Your task to perform on an android device: delete location history Image 0: 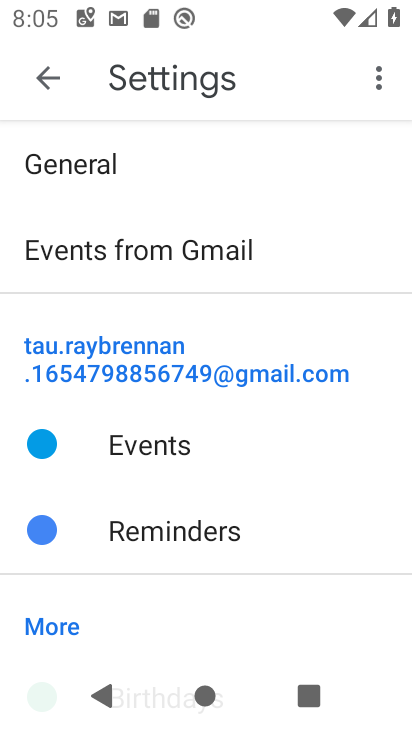
Step 0: press home button
Your task to perform on an android device: delete location history Image 1: 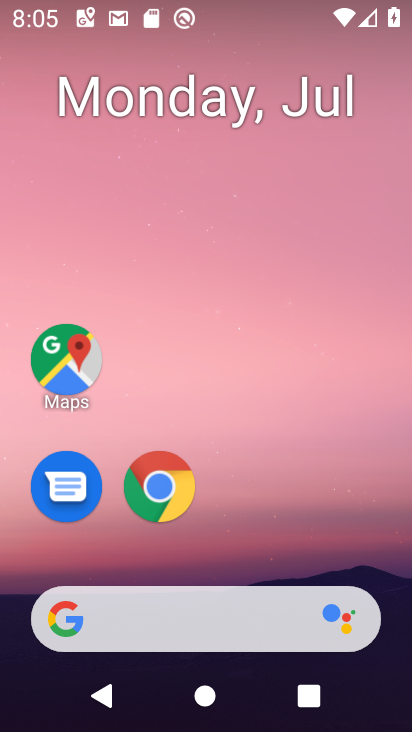
Step 1: drag from (369, 534) to (370, 127)
Your task to perform on an android device: delete location history Image 2: 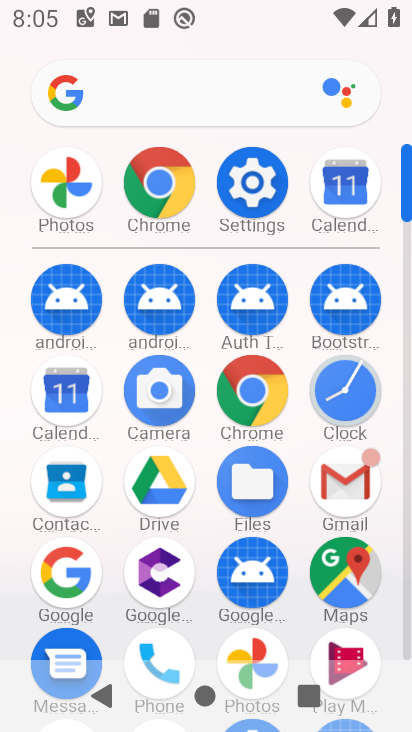
Step 2: click (341, 567)
Your task to perform on an android device: delete location history Image 3: 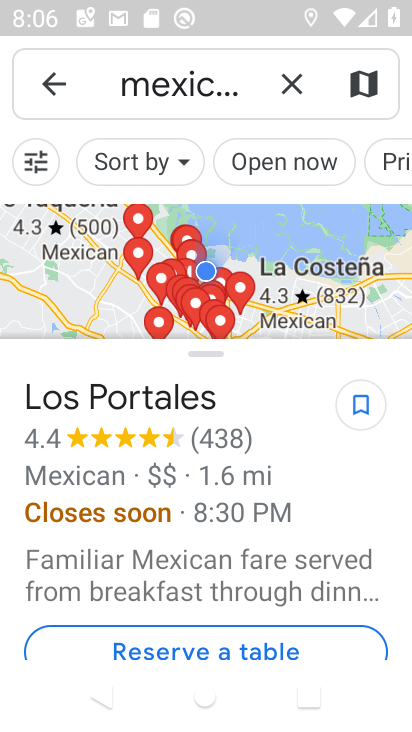
Step 3: press back button
Your task to perform on an android device: delete location history Image 4: 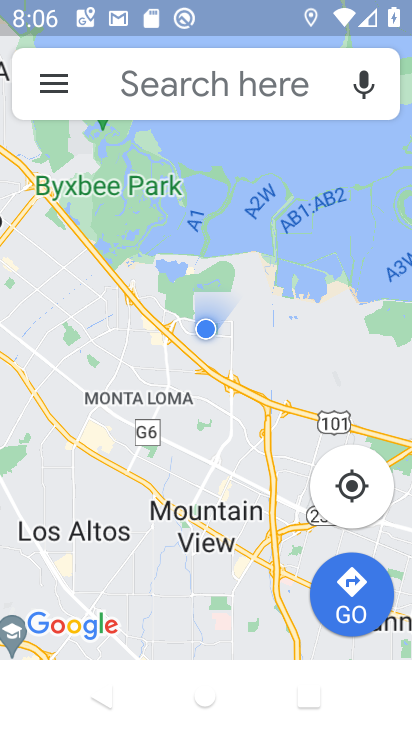
Step 4: click (57, 90)
Your task to perform on an android device: delete location history Image 5: 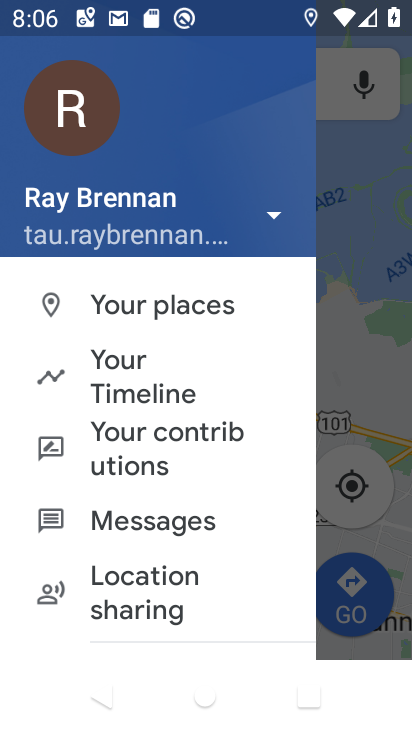
Step 5: click (209, 384)
Your task to perform on an android device: delete location history Image 6: 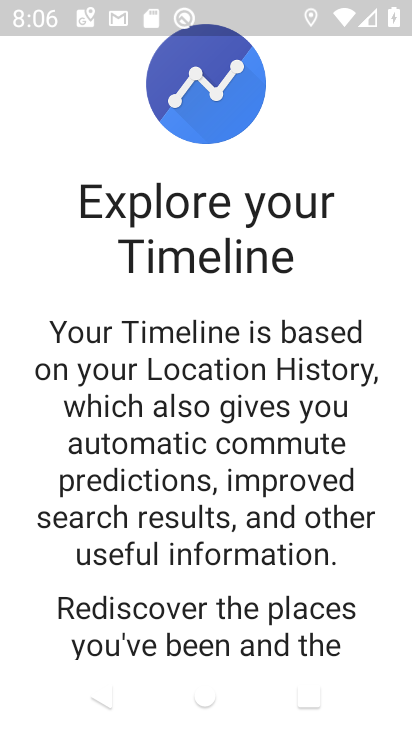
Step 6: drag from (251, 453) to (275, 100)
Your task to perform on an android device: delete location history Image 7: 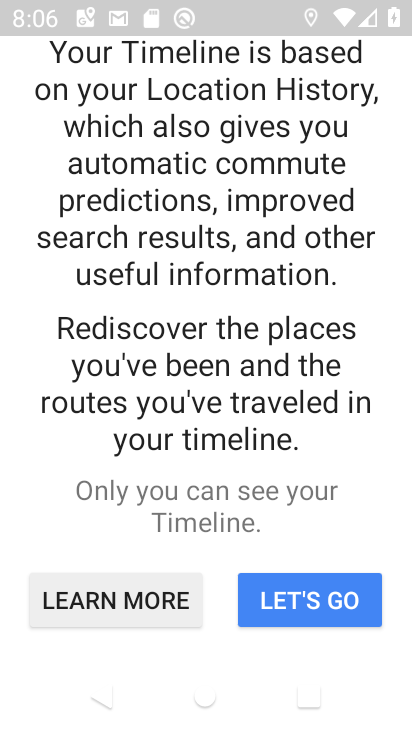
Step 7: click (332, 606)
Your task to perform on an android device: delete location history Image 8: 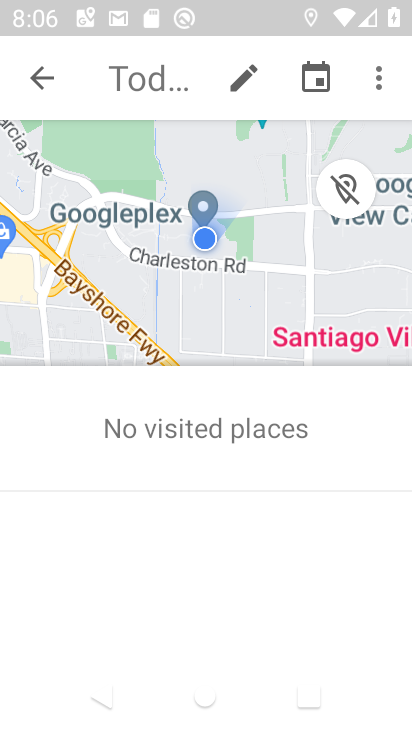
Step 8: click (376, 83)
Your task to perform on an android device: delete location history Image 9: 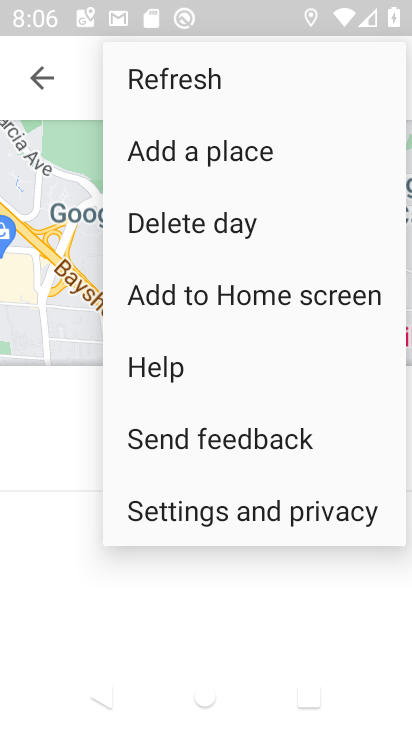
Step 9: click (287, 518)
Your task to perform on an android device: delete location history Image 10: 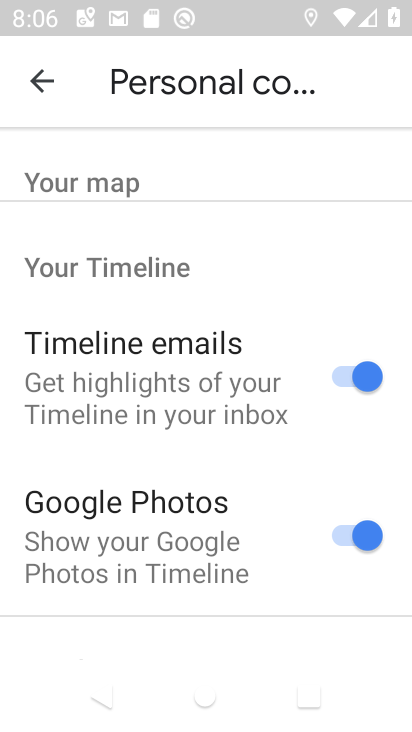
Step 10: drag from (294, 541) to (304, 328)
Your task to perform on an android device: delete location history Image 11: 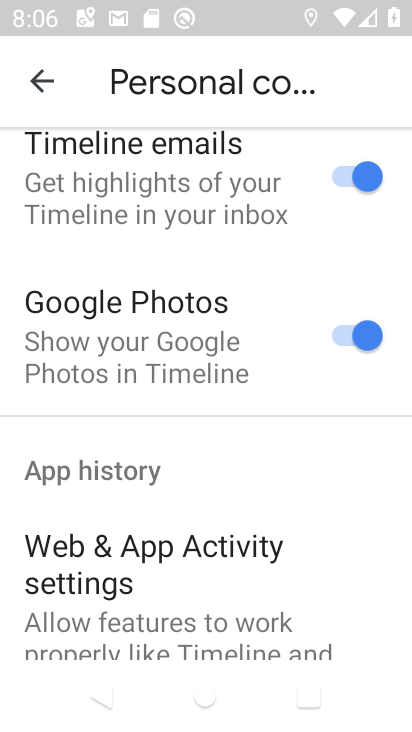
Step 11: drag from (308, 557) to (291, 371)
Your task to perform on an android device: delete location history Image 12: 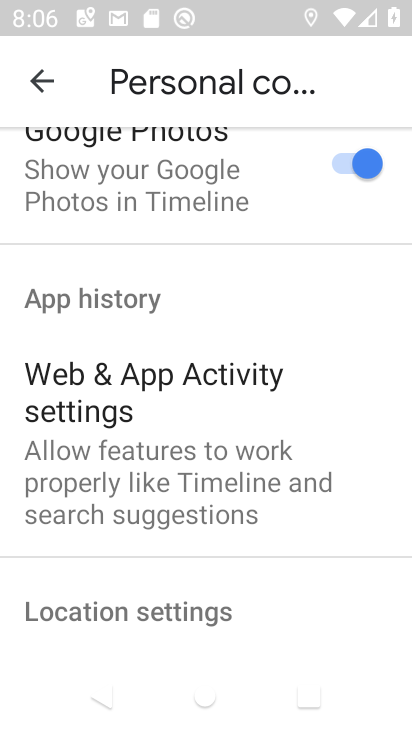
Step 12: drag from (320, 577) to (319, 368)
Your task to perform on an android device: delete location history Image 13: 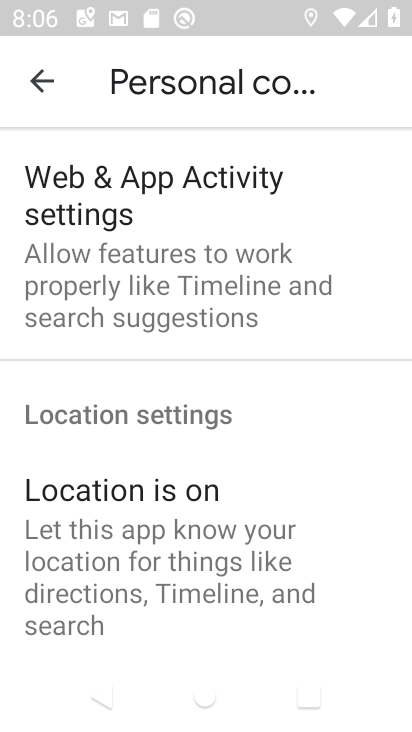
Step 13: drag from (327, 443) to (329, 300)
Your task to perform on an android device: delete location history Image 14: 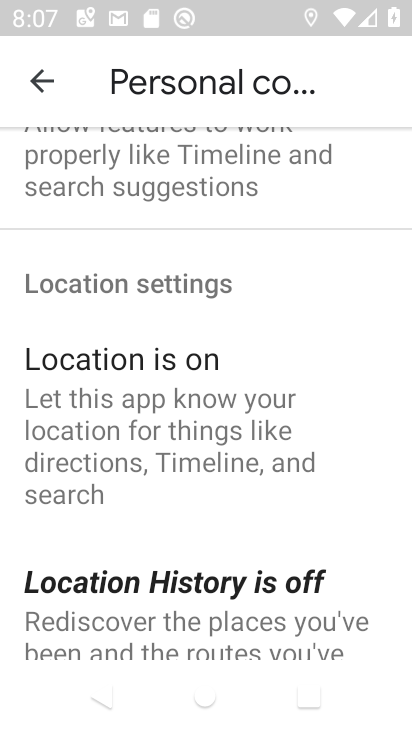
Step 14: drag from (350, 470) to (351, 292)
Your task to perform on an android device: delete location history Image 15: 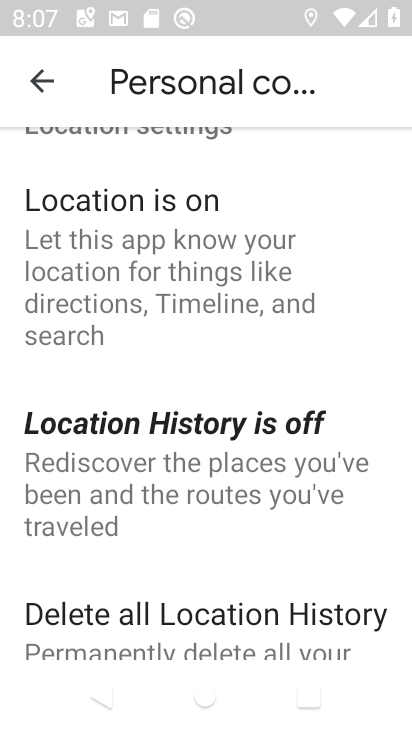
Step 15: drag from (353, 502) to (358, 154)
Your task to perform on an android device: delete location history Image 16: 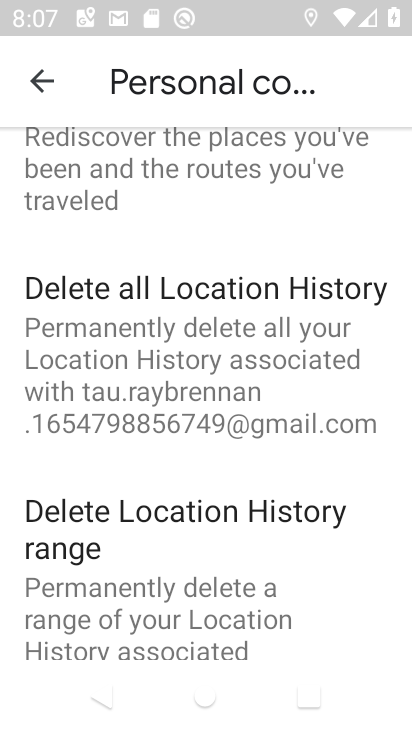
Step 16: click (207, 356)
Your task to perform on an android device: delete location history Image 17: 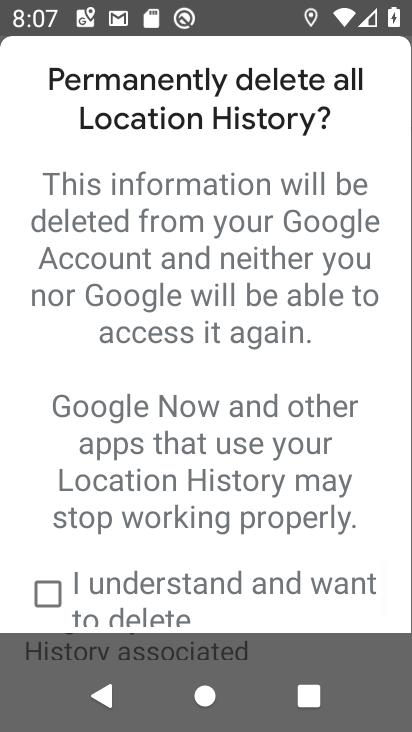
Step 17: drag from (279, 497) to (276, 329)
Your task to perform on an android device: delete location history Image 18: 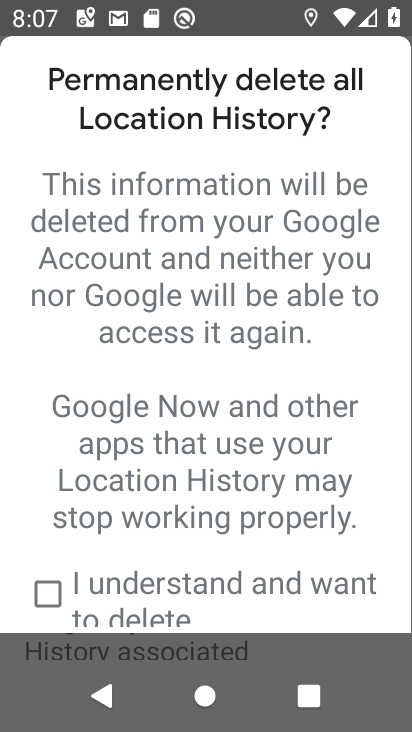
Step 18: click (51, 596)
Your task to perform on an android device: delete location history Image 19: 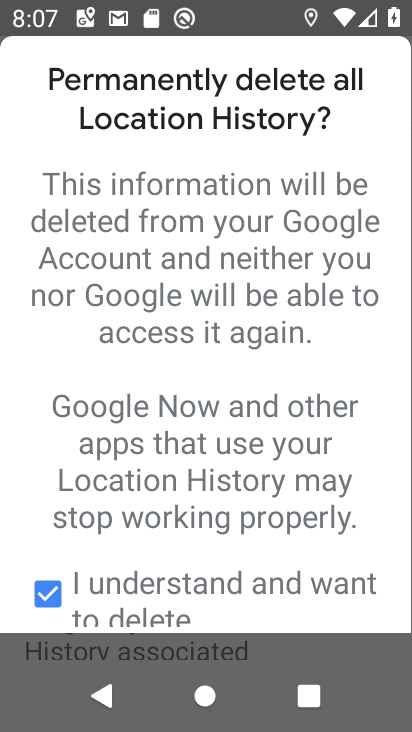
Step 19: drag from (276, 532) to (286, 312)
Your task to perform on an android device: delete location history Image 20: 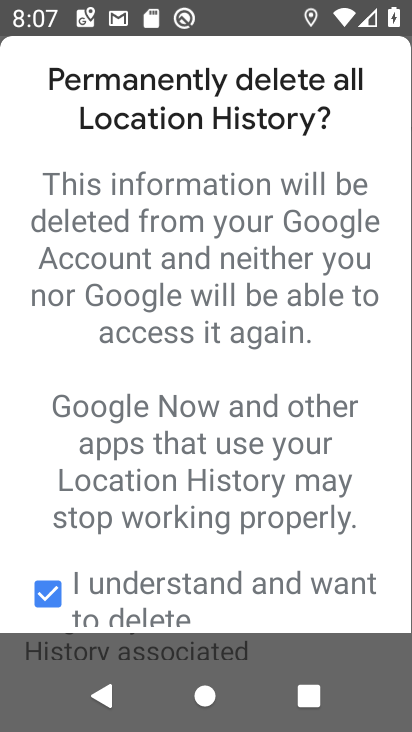
Step 20: click (320, 603)
Your task to perform on an android device: delete location history Image 21: 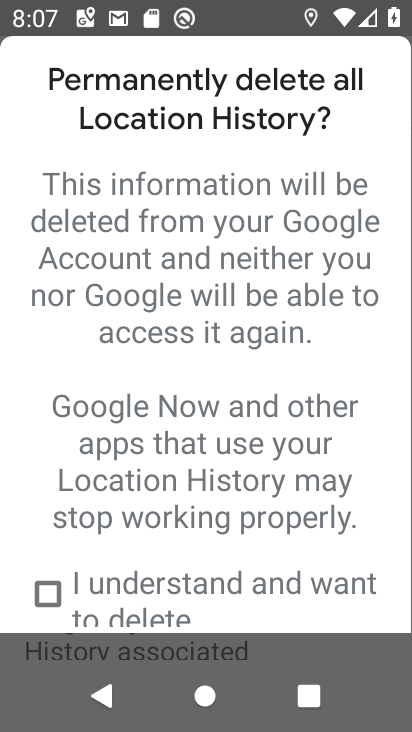
Step 21: drag from (327, 521) to (332, 293)
Your task to perform on an android device: delete location history Image 22: 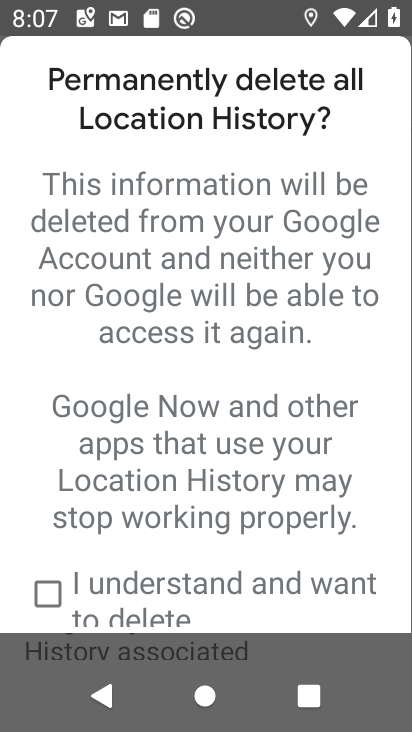
Step 22: click (52, 595)
Your task to perform on an android device: delete location history Image 23: 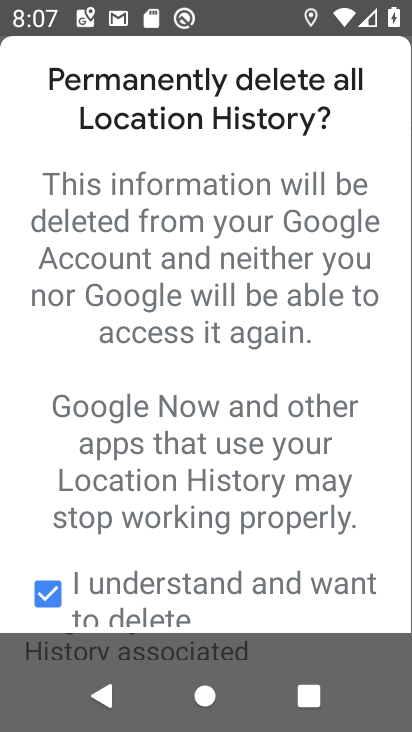
Step 23: task complete